Your task to perform on an android device: Search for pizza restaurants on Maps Image 0: 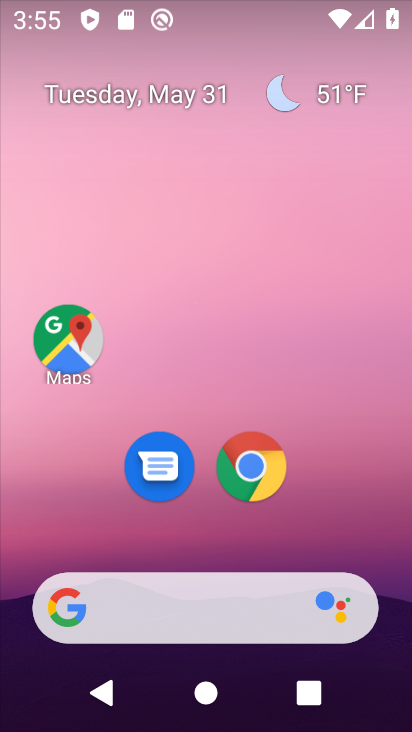
Step 0: press home button
Your task to perform on an android device: Search for pizza restaurants on Maps Image 1: 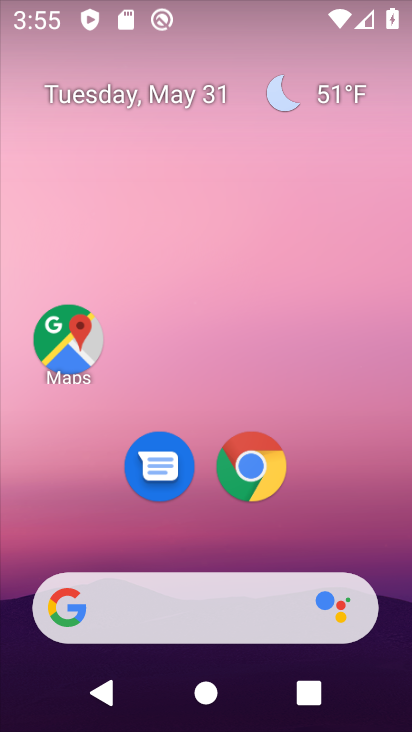
Step 1: click (70, 336)
Your task to perform on an android device: Search for pizza restaurants on Maps Image 2: 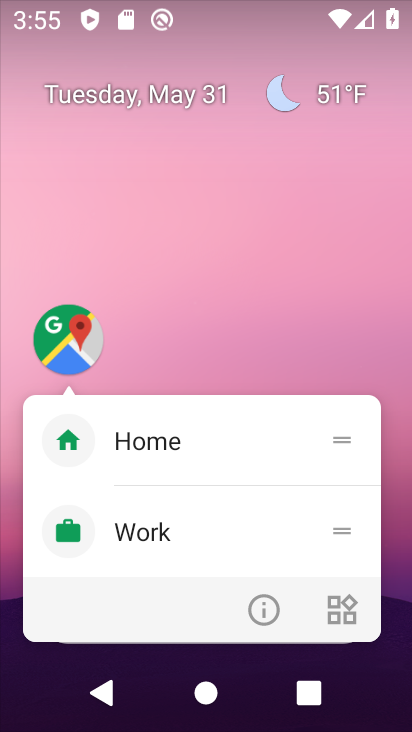
Step 2: click (66, 332)
Your task to perform on an android device: Search for pizza restaurants on Maps Image 3: 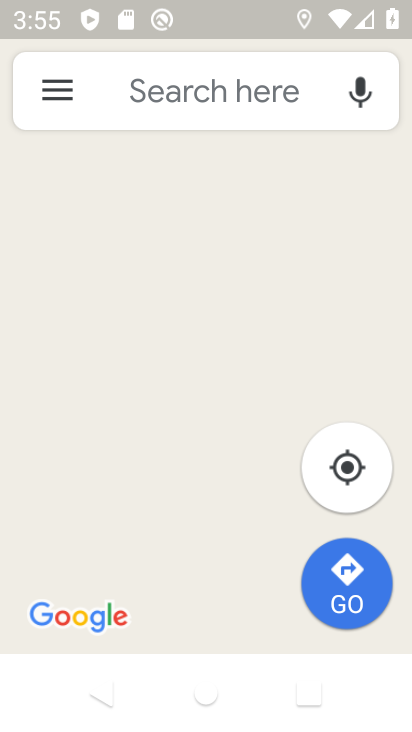
Step 3: click (169, 87)
Your task to perform on an android device: Search for pizza restaurants on Maps Image 4: 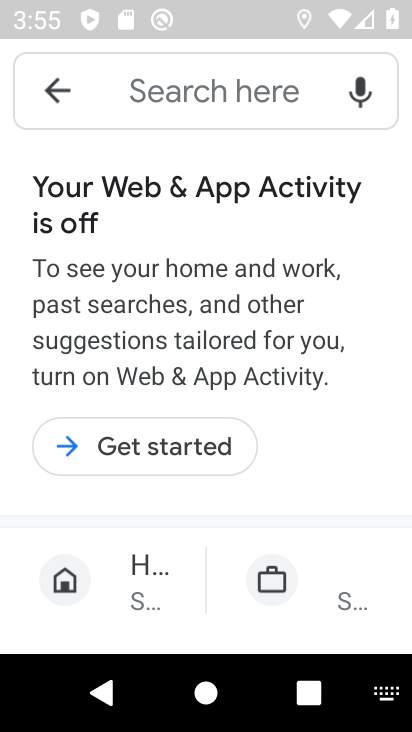
Step 4: click (179, 94)
Your task to perform on an android device: Search for pizza restaurants on Maps Image 5: 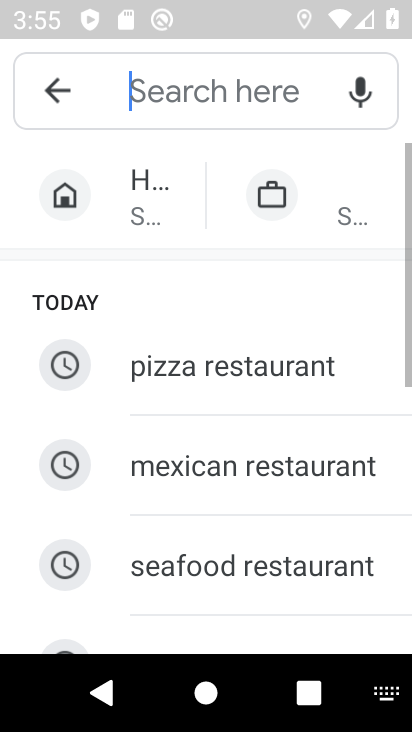
Step 5: type "pizza"
Your task to perform on an android device: Search for pizza restaurants on Maps Image 6: 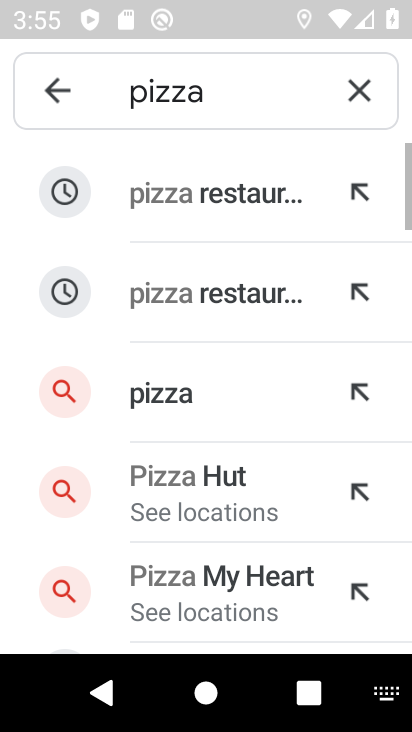
Step 6: click (211, 213)
Your task to perform on an android device: Search for pizza restaurants on Maps Image 7: 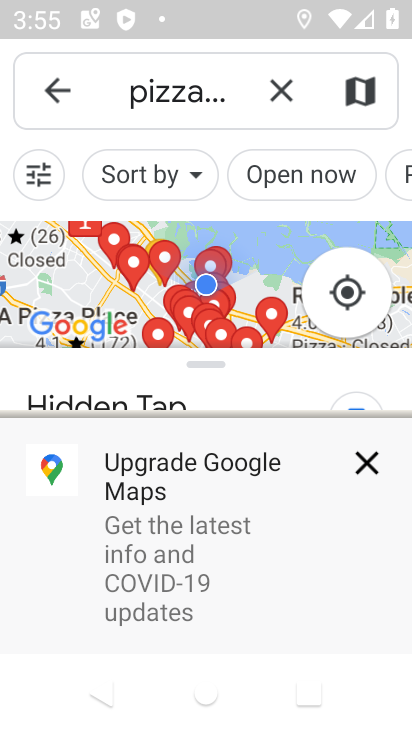
Step 7: click (363, 470)
Your task to perform on an android device: Search for pizza restaurants on Maps Image 8: 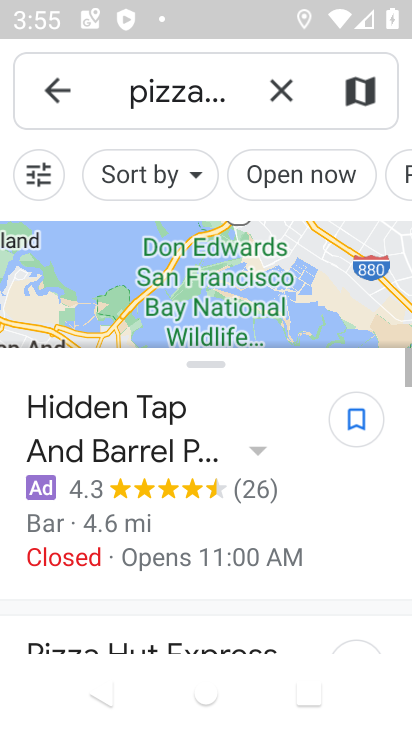
Step 8: task complete